Your task to perform on an android device: Open Google Maps Image 0: 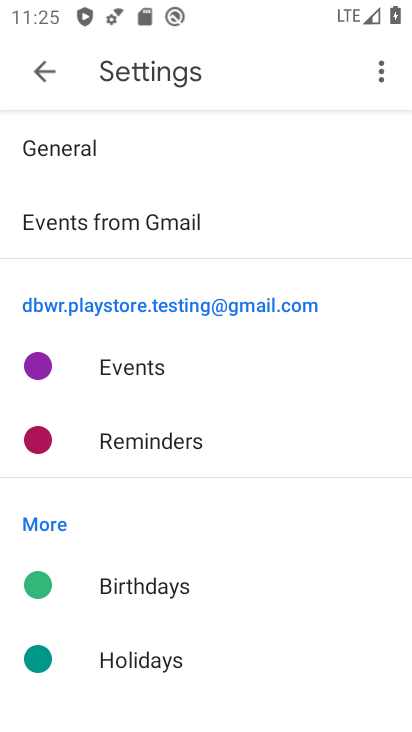
Step 0: press home button
Your task to perform on an android device: Open Google Maps Image 1: 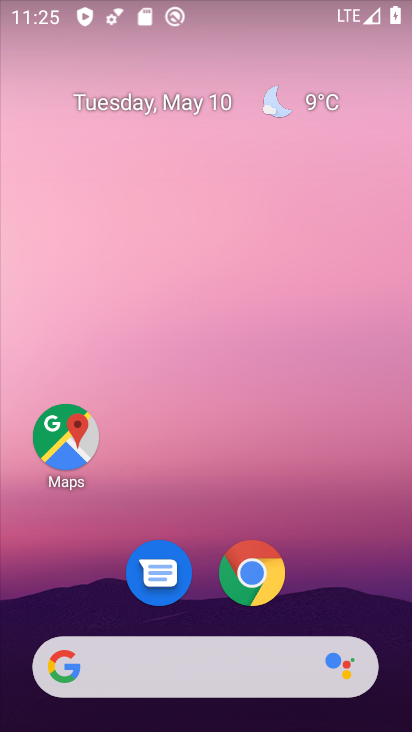
Step 1: click (65, 438)
Your task to perform on an android device: Open Google Maps Image 2: 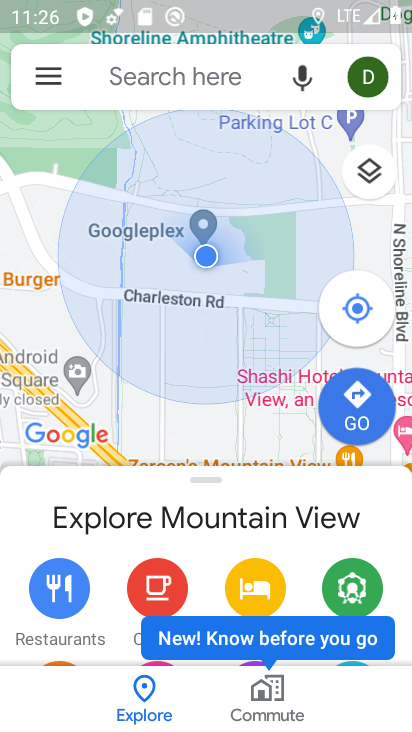
Step 2: task complete